Your task to perform on an android device: add a label to a message in the gmail app Image 0: 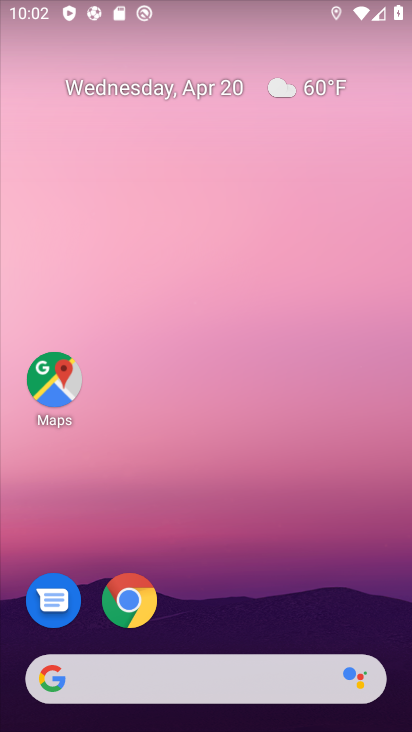
Step 0: drag from (229, 641) to (238, 221)
Your task to perform on an android device: add a label to a message in the gmail app Image 1: 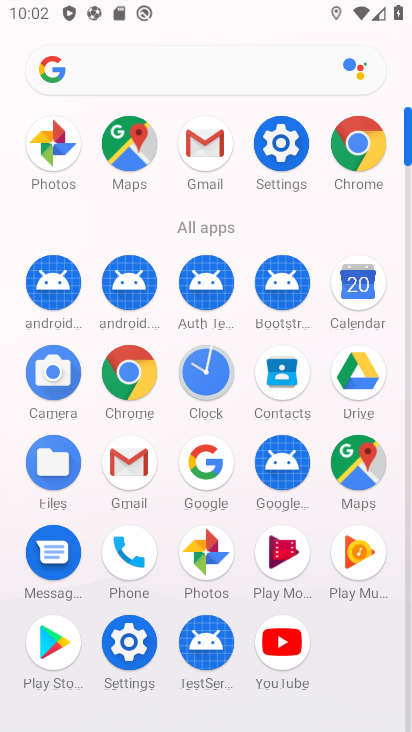
Step 1: click (196, 140)
Your task to perform on an android device: add a label to a message in the gmail app Image 2: 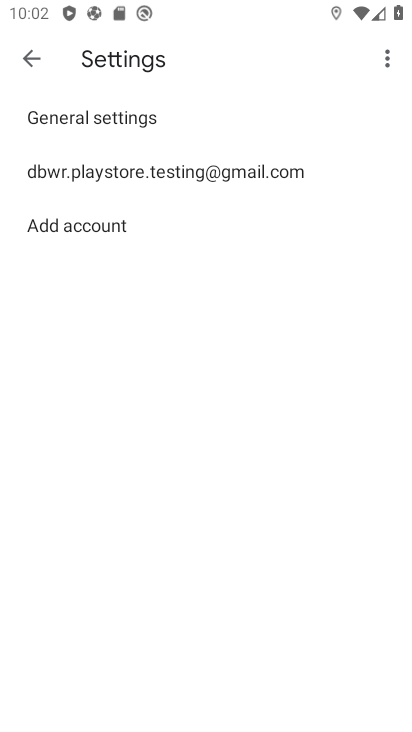
Step 2: click (26, 54)
Your task to perform on an android device: add a label to a message in the gmail app Image 3: 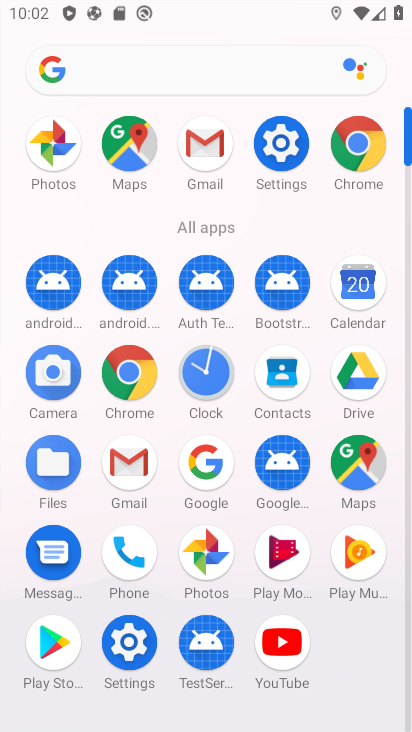
Step 3: click (114, 452)
Your task to perform on an android device: add a label to a message in the gmail app Image 4: 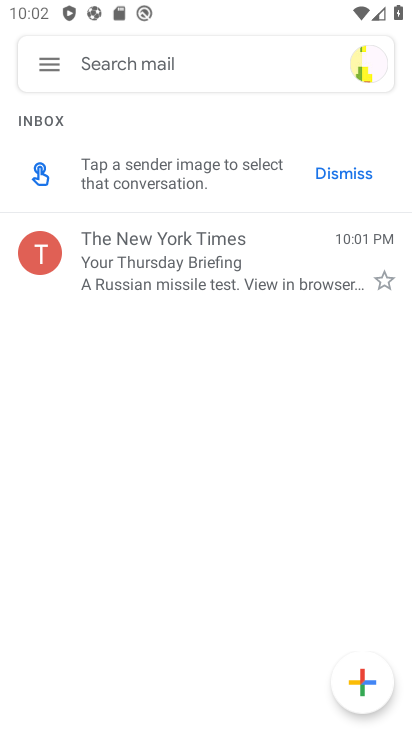
Step 4: click (42, 254)
Your task to perform on an android device: add a label to a message in the gmail app Image 5: 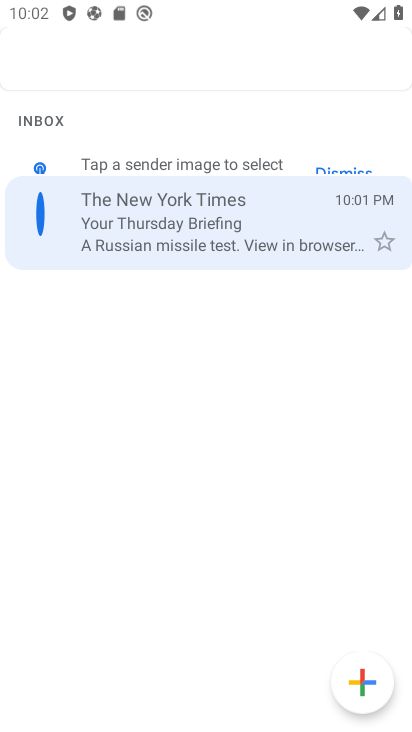
Step 5: click (41, 253)
Your task to perform on an android device: add a label to a message in the gmail app Image 6: 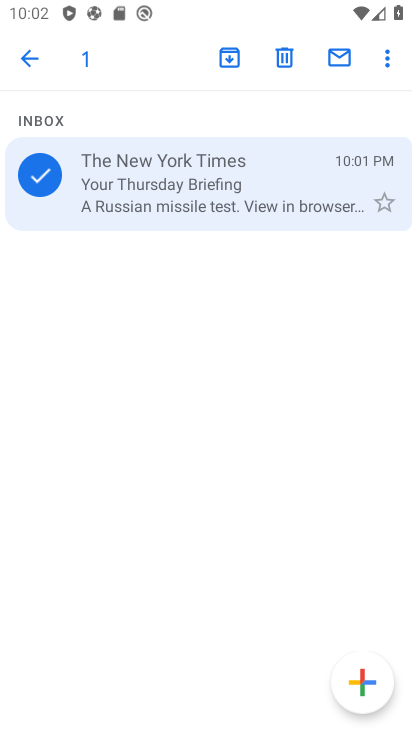
Step 6: click (393, 50)
Your task to perform on an android device: add a label to a message in the gmail app Image 7: 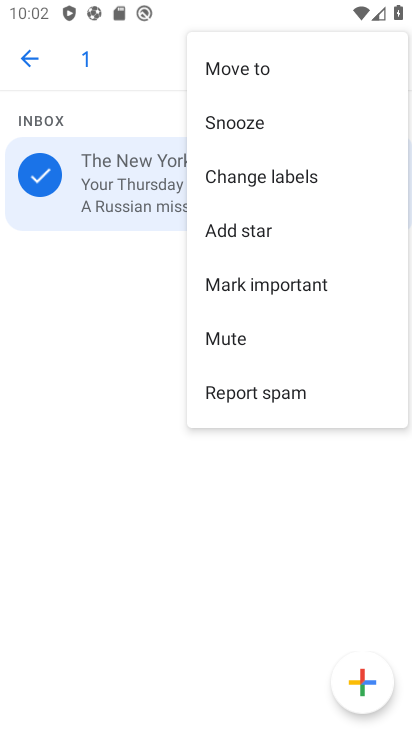
Step 7: click (254, 173)
Your task to perform on an android device: add a label to a message in the gmail app Image 8: 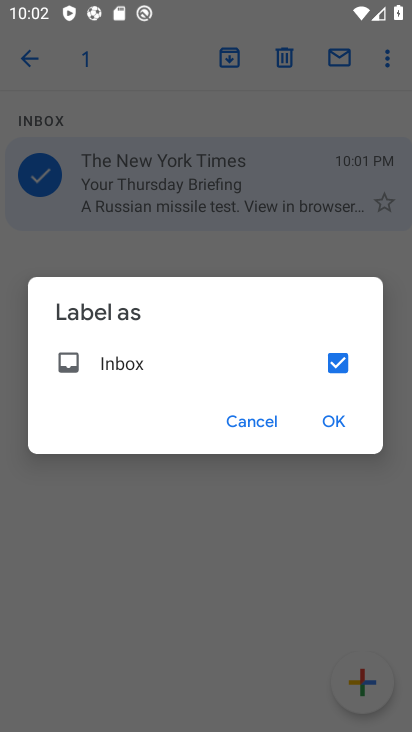
Step 8: click (311, 418)
Your task to perform on an android device: add a label to a message in the gmail app Image 9: 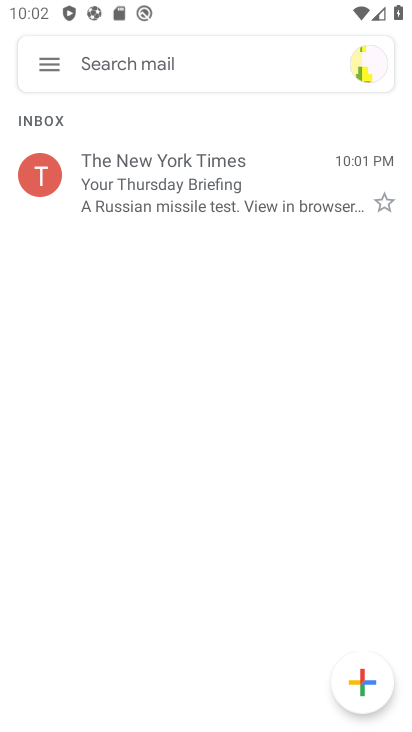
Step 9: task complete